Your task to perform on an android device: Show me popular videos on Youtube Image 0: 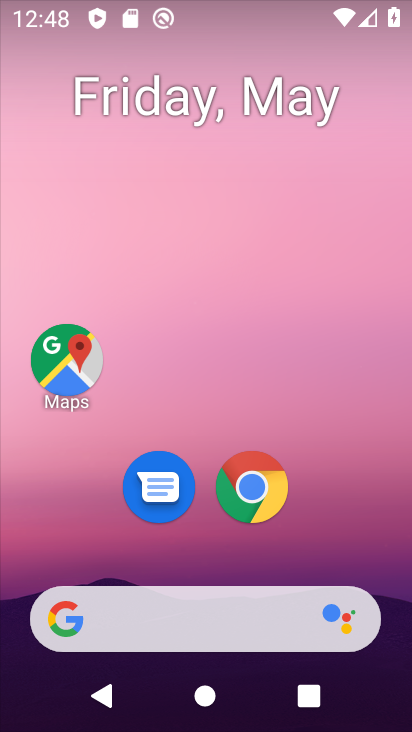
Step 0: drag from (197, 543) to (220, 189)
Your task to perform on an android device: Show me popular videos on Youtube Image 1: 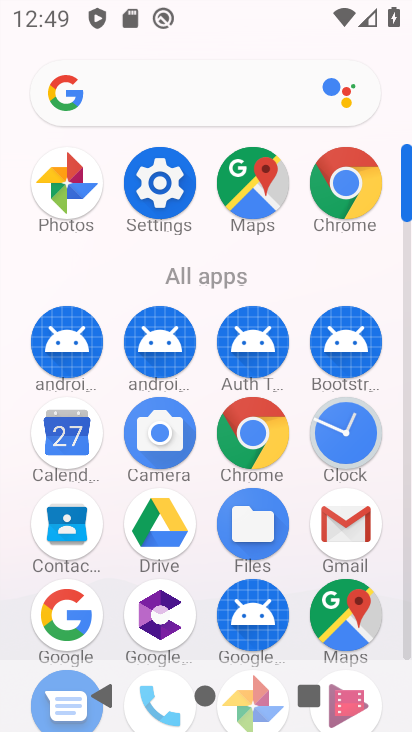
Step 1: drag from (217, 564) to (294, 4)
Your task to perform on an android device: Show me popular videos on Youtube Image 2: 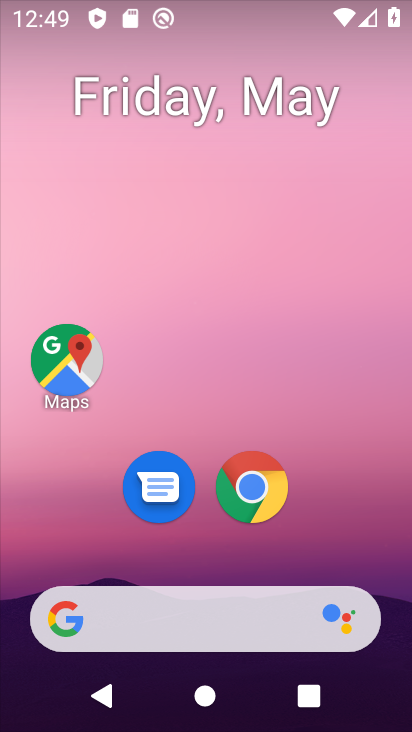
Step 2: drag from (240, 284) to (265, 86)
Your task to perform on an android device: Show me popular videos on Youtube Image 3: 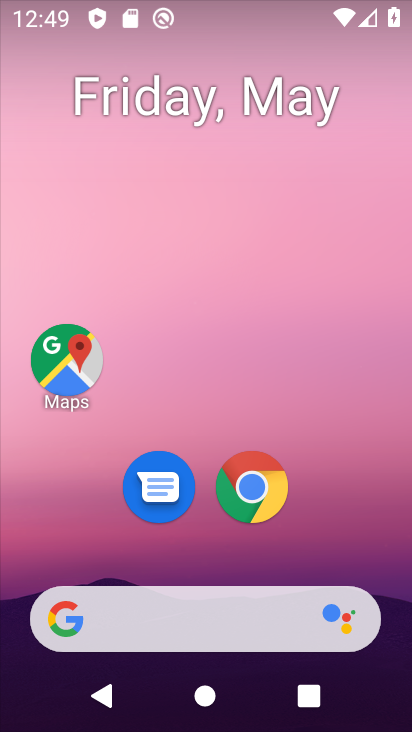
Step 3: drag from (199, 548) to (230, 57)
Your task to perform on an android device: Show me popular videos on Youtube Image 4: 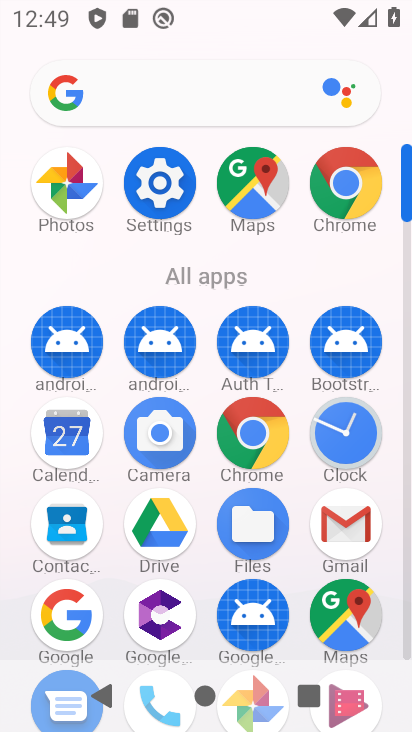
Step 4: drag from (200, 586) to (227, 85)
Your task to perform on an android device: Show me popular videos on Youtube Image 5: 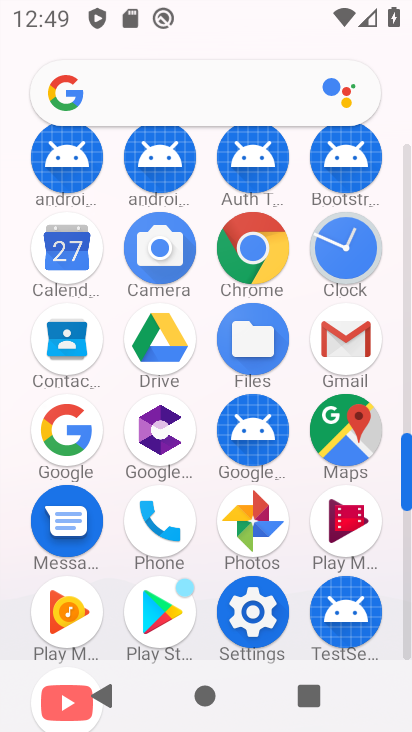
Step 5: drag from (194, 556) to (211, 57)
Your task to perform on an android device: Show me popular videos on Youtube Image 6: 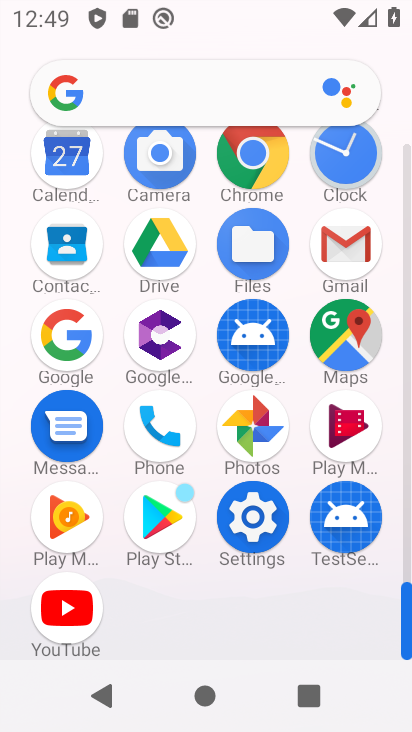
Step 6: click (73, 602)
Your task to perform on an android device: Show me popular videos on Youtube Image 7: 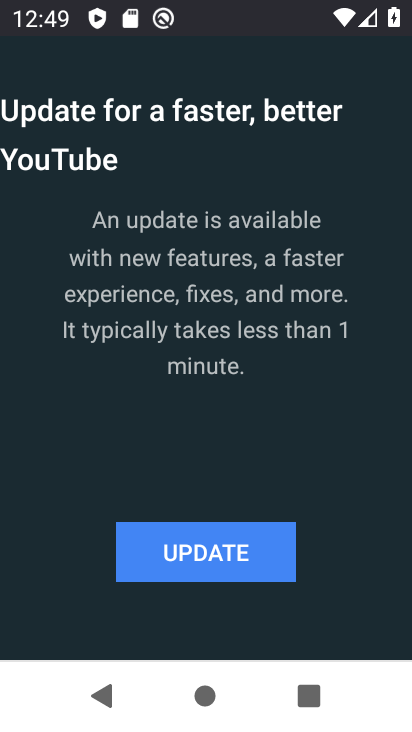
Step 7: click (235, 537)
Your task to perform on an android device: Show me popular videos on Youtube Image 8: 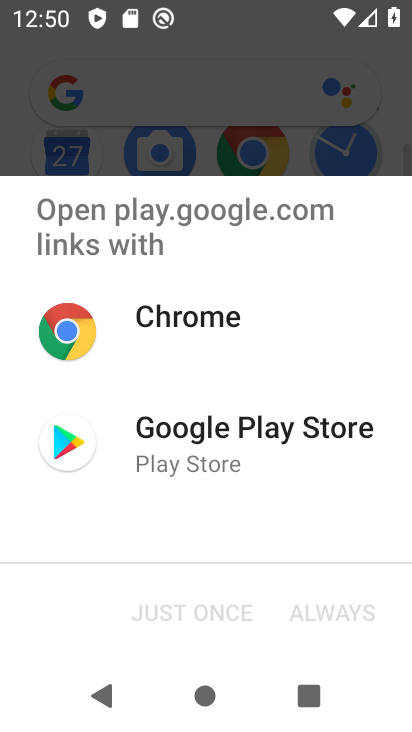
Step 8: click (207, 459)
Your task to perform on an android device: Show me popular videos on Youtube Image 9: 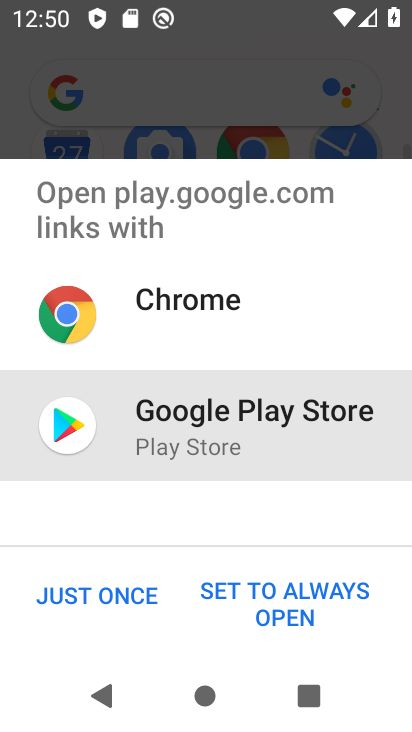
Step 9: click (135, 603)
Your task to perform on an android device: Show me popular videos on Youtube Image 10: 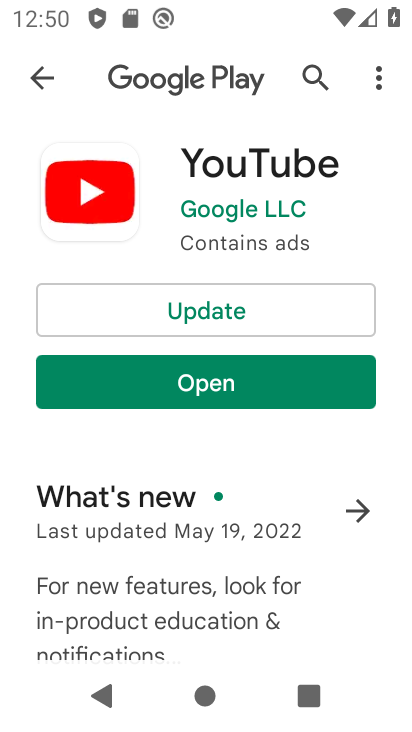
Step 10: click (155, 303)
Your task to perform on an android device: Show me popular videos on Youtube Image 11: 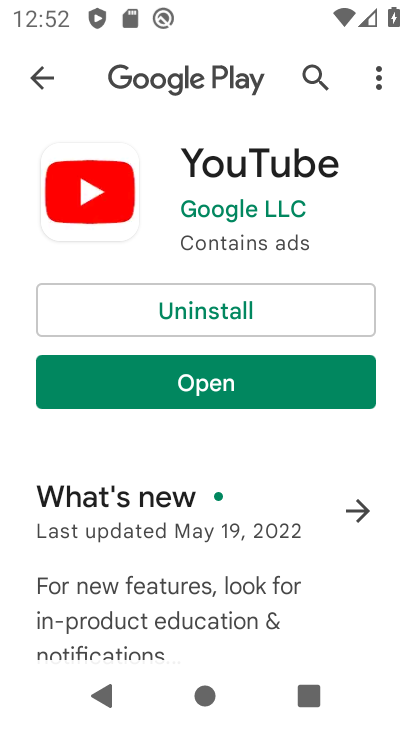
Step 11: click (158, 362)
Your task to perform on an android device: Show me popular videos on Youtube Image 12: 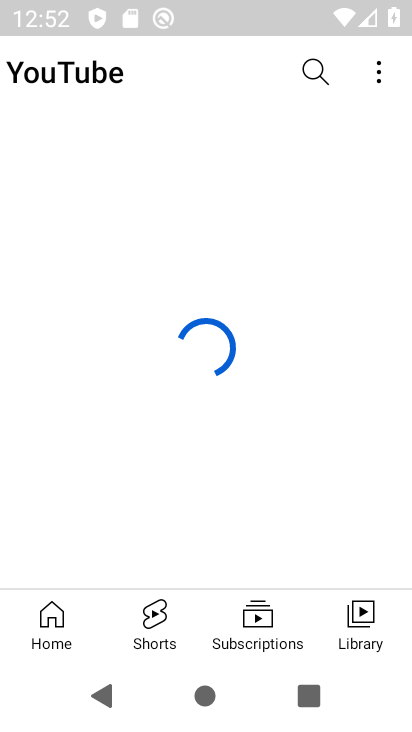
Step 12: click (54, 621)
Your task to perform on an android device: Show me popular videos on Youtube Image 13: 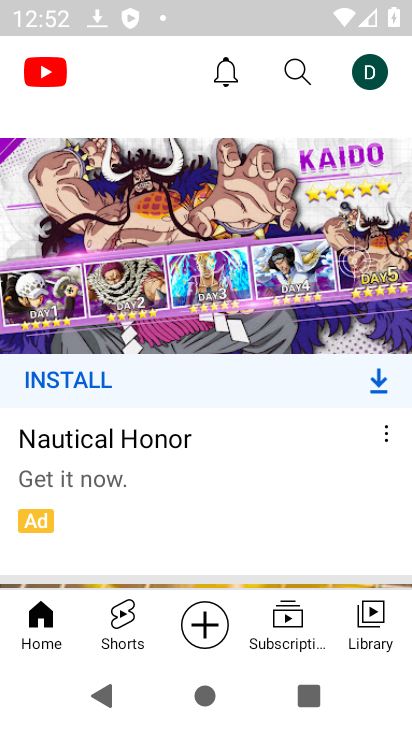
Step 13: click (89, 142)
Your task to perform on an android device: Show me popular videos on Youtube Image 14: 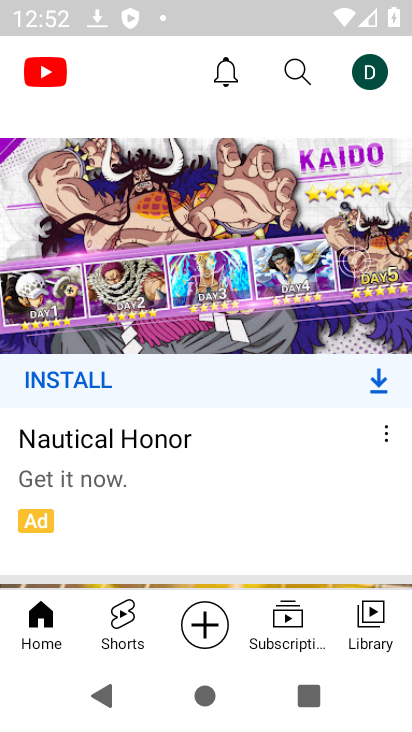
Step 14: drag from (89, 142) to (72, 505)
Your task to perform on an android device: Show me popular videos on Youtube Image 15: 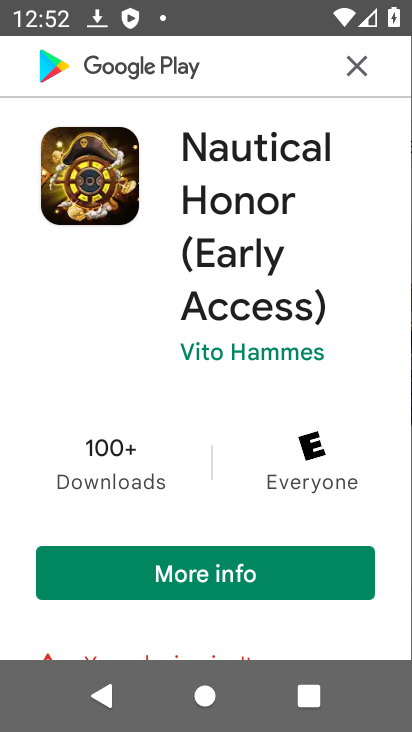
Step 15: click (360, 78)
Your task to perform on an android device: Show me popular videos on Youtube Image 16: 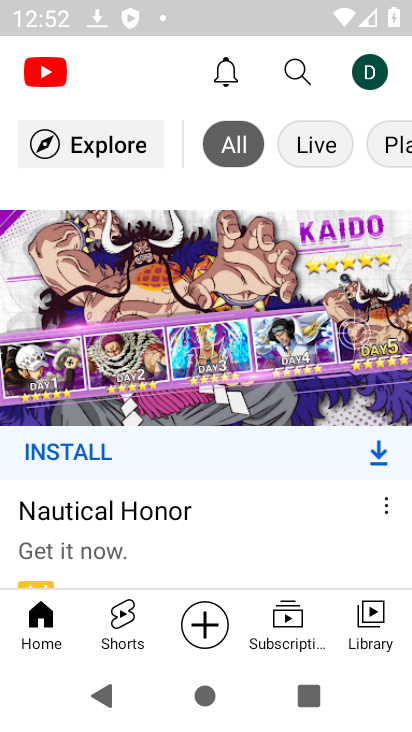
Step 16: click (119, 148)
Your task to perform on an android device: Show me popular videos on Youtube Image 17: 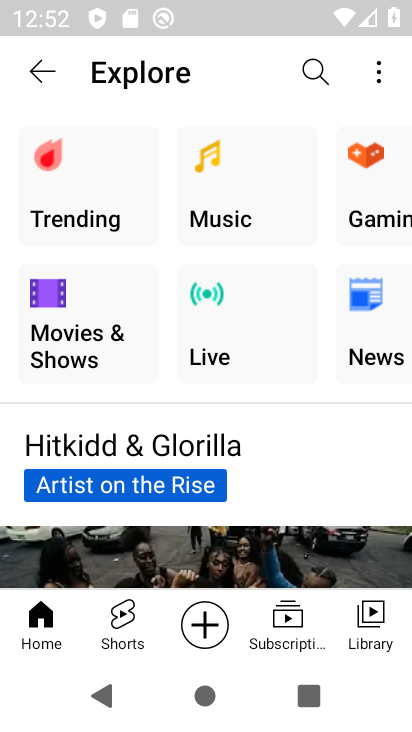
Step 17: click (113, 166)
Your task to perform on an android device: Show me popular videos on Youtube Image 18: 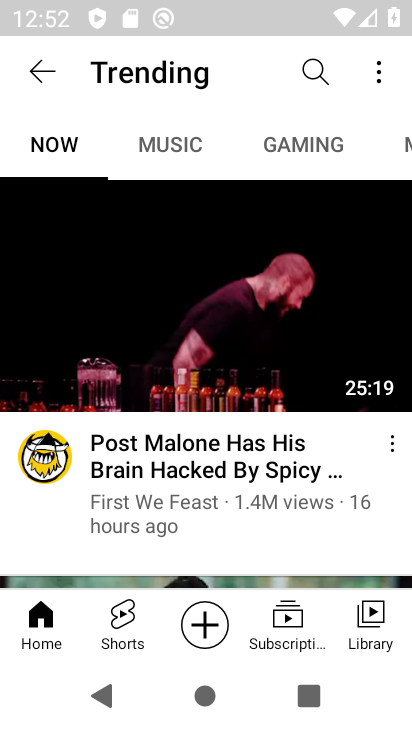
Step 18: task complete